Your task to perform on an android device: Open the stopwatch Image 0: 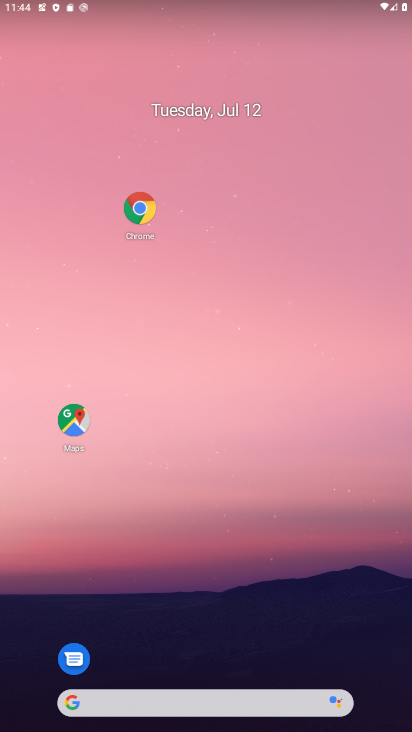
Step 0: drag from (228, 605) to (256, 95)
Your task to perform on an android device: Open the stopwatch Image 1: 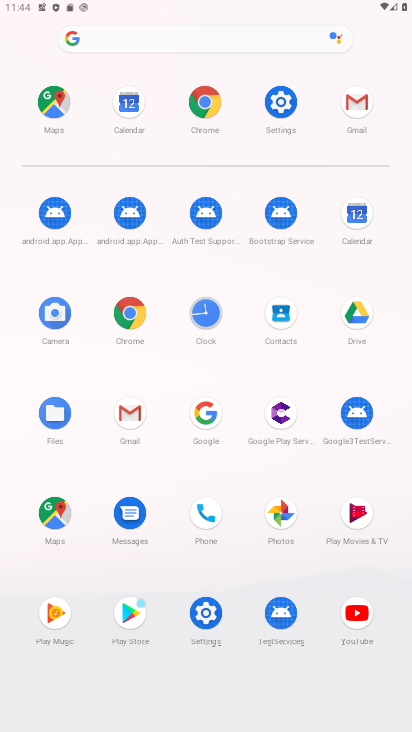
Step 1: click (197, 314)
Your task to perform on an android device: Open the stopwatch Image 2: 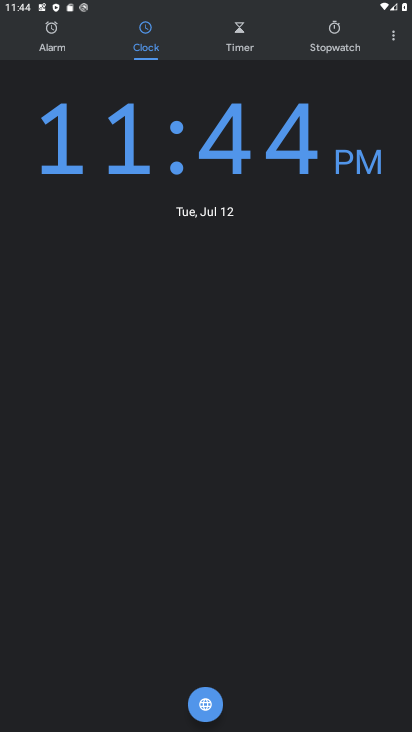
Step 2: click (335, 39)
Your task to perform on an android device: Open the stopwatch Image 3: 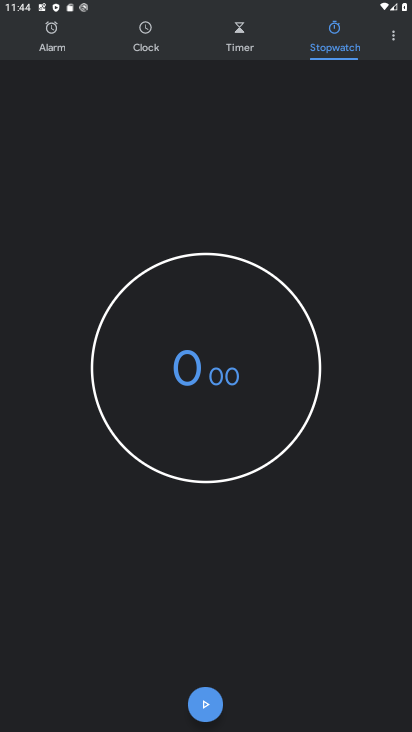
Step 3: click (215, 706)
Your task to perform on an android device: Open the stopwatch Image 4: 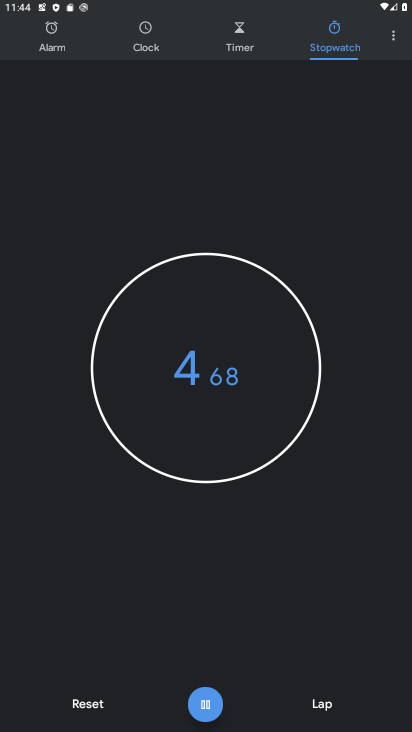
Step 4: task complete